Your task to perform on an android device: Open the Play Movies app and select the watchlist tab. Image 0: 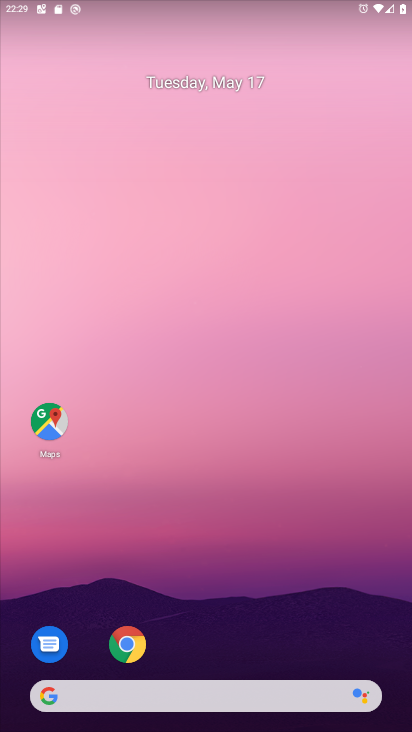
Step 0: press home button
Your task to perform on an android device: Open the Play Movies app and select the watchlist tab. Image 1: 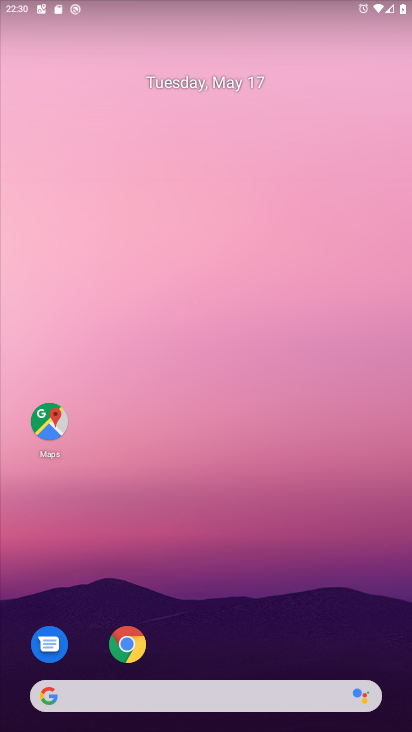
Step 1: drag from (217, 644) to (242, 254)
Your task to perform on an android device: Open the Play Movies app and select the watchlist tab. Image 2: 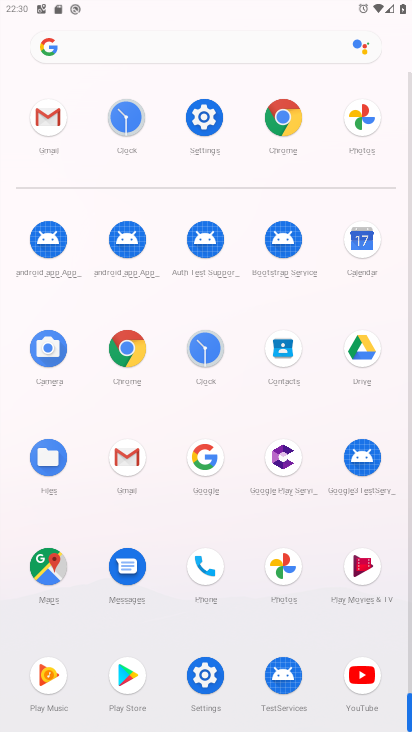
Step 2: click (357, 566)
Your task to perform on an android device: Open the Play Movies app and select the watchlist tab. Image 3: 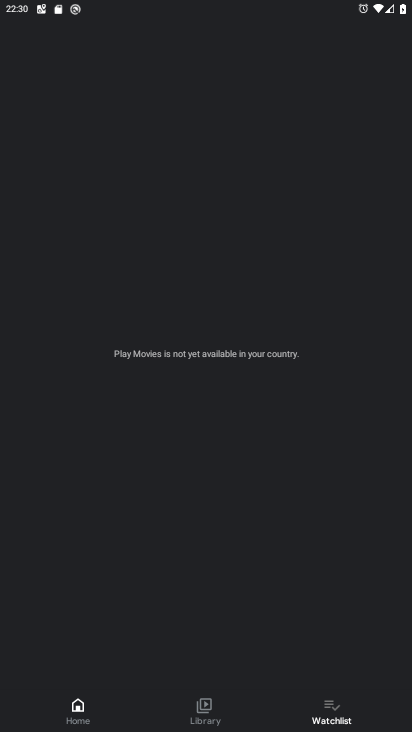
Step 3: click (328, 708)
Your task to perform on an android device: Open the Play Movies app and select the watchlist tab. Image 4: 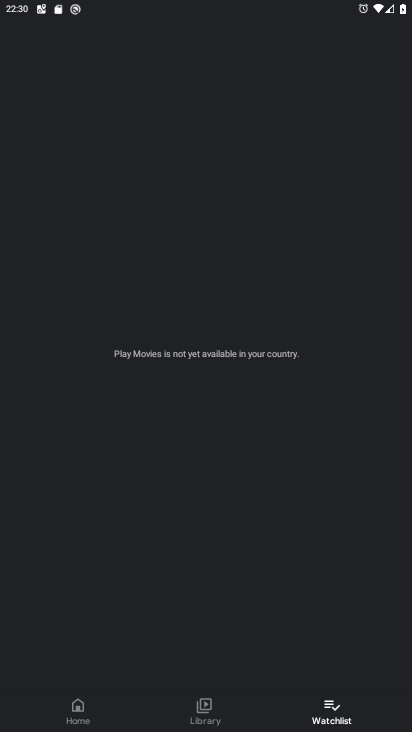
Step 4: task complete